Your task to perform on an android device: Open Android settings Image 0: 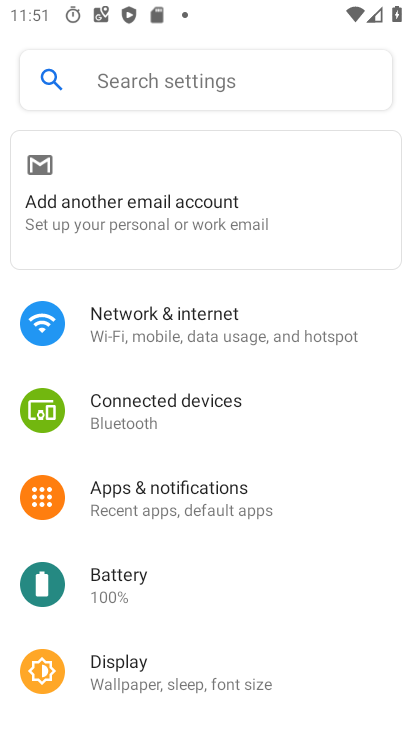
Step 0: press home button
Your task to perform on an android device: Open Android settings Image 1: 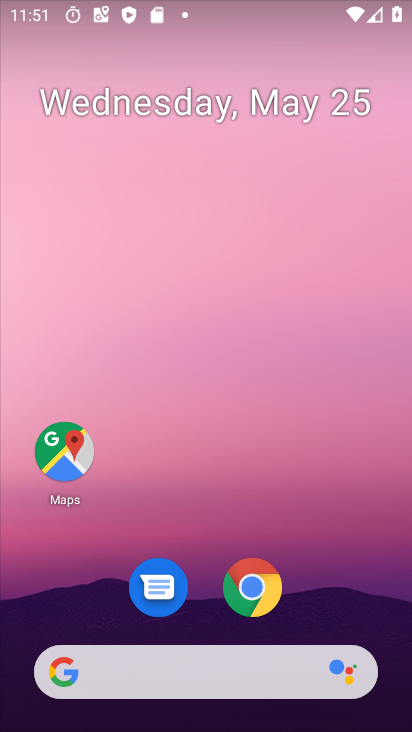
Step 1: drag from (255, 697) to (409, 333)
Your task to perform on an android device: Open Android settings Image 2: 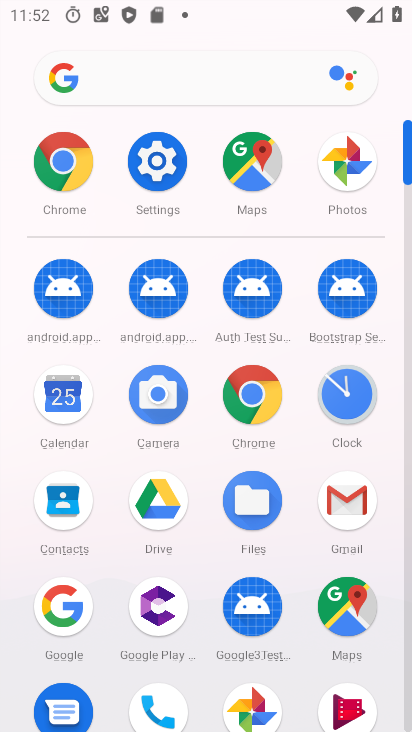
Step 2: click (160, 157)
Your task to perform on an android device: Open Android settings Image 3: 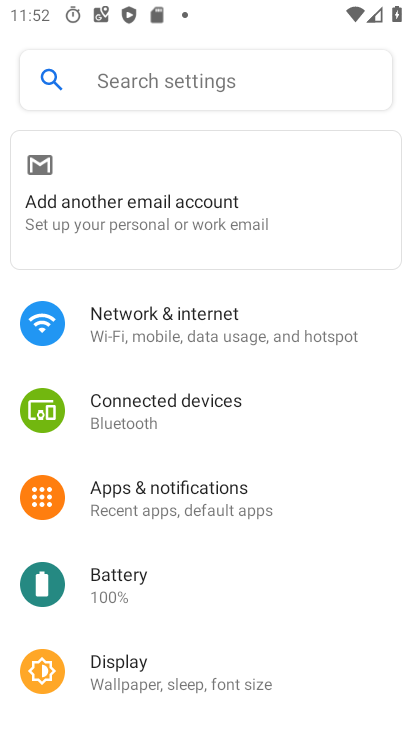
Step 3: click (143, 82)
Your task to perform on an android device: Open Android settings Image 4: 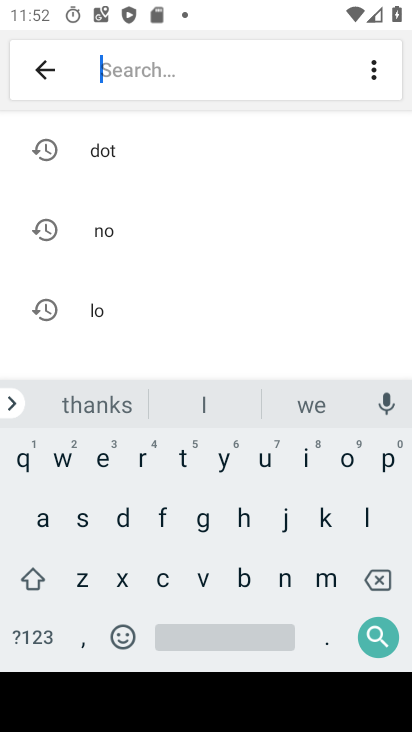
Step 4: click (37, 516)
Your task to perform on an android device: Open Android settings Image 5: 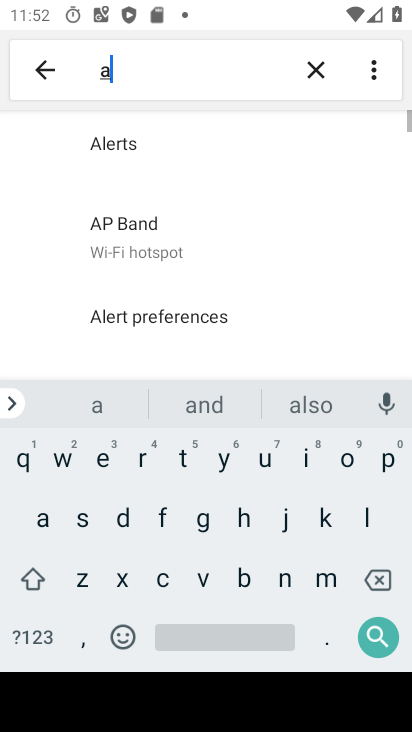
Step 5: click (282, 574)
Your task to perform on an android device: Open Android settings Image 6: 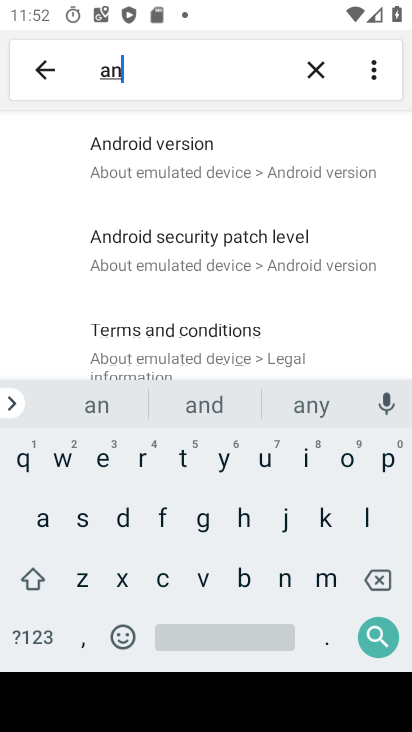
Step 6: click (191, 158)
Your task to perform on an android device: Open Android settings Image 7: 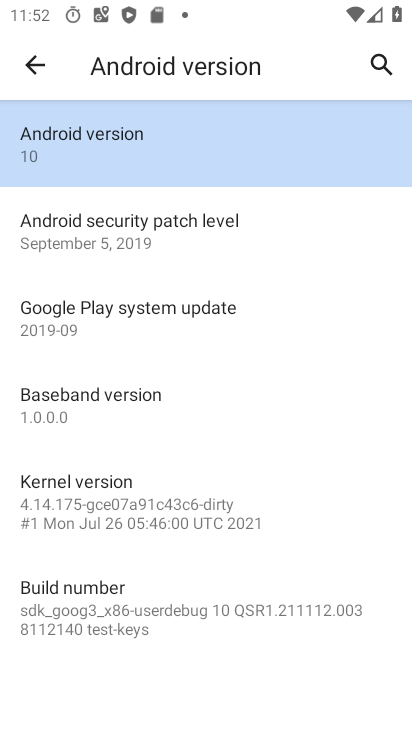
Step 7: click (254, 134)
Your task to perform on an android device: Open Android settings Image 8: 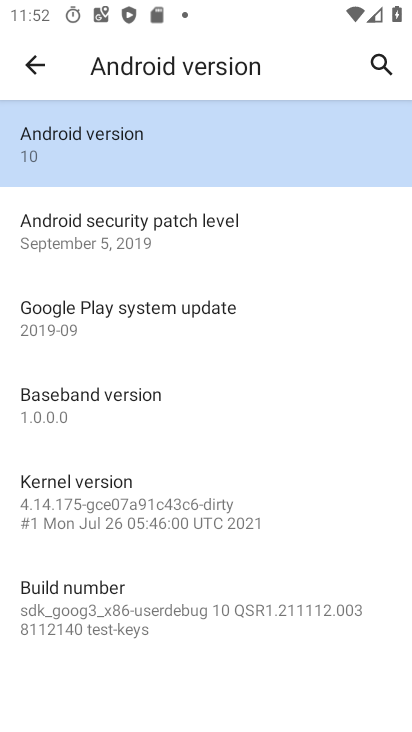
Step 8: task complete